Your task to perform on an android device: star an email in the gmail app Image 0: 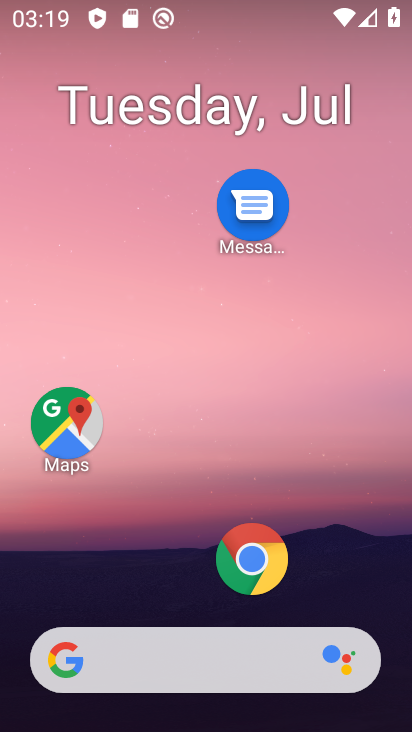
Step 0: drag from (168, 589) to (235, 27)
Your task to perform on an android device: star an email in the gmail app Image 1: 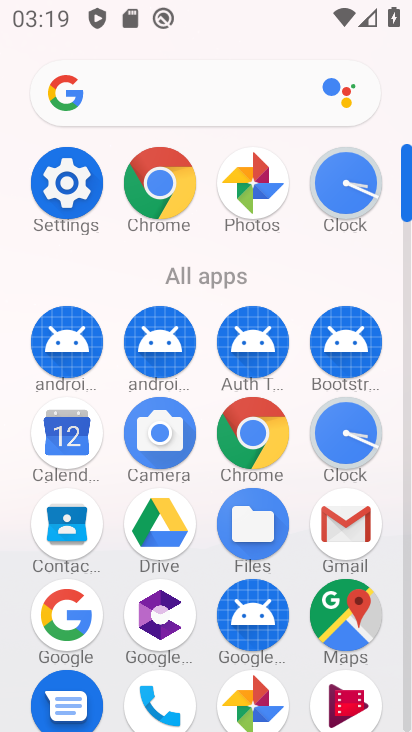
Step 1: click (344, 523)
Your task to perform on an android device: star an email in the gmail app Image 2: 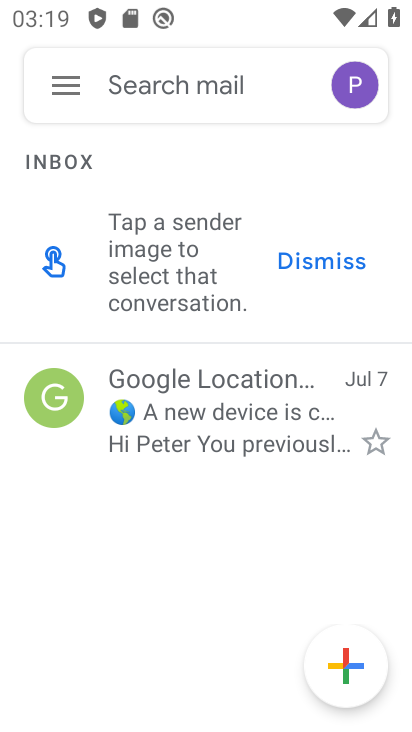
Step 2: click (377, 449)
Your task to perform on an android device: star an email in the gmail app Image 3: 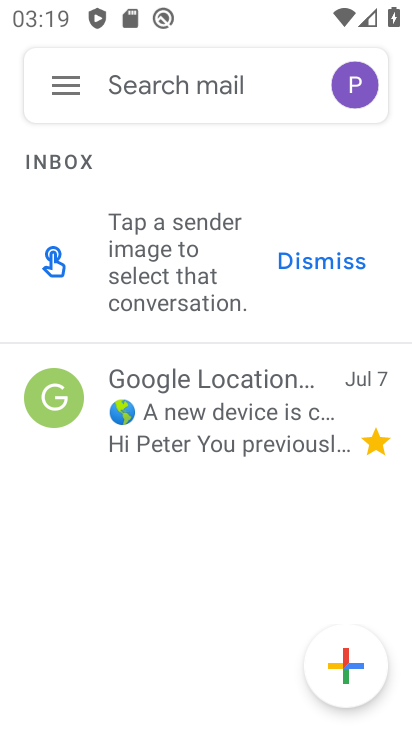
Step 3: task complete